Your task to perform on an android device: change the clock style Image 0: 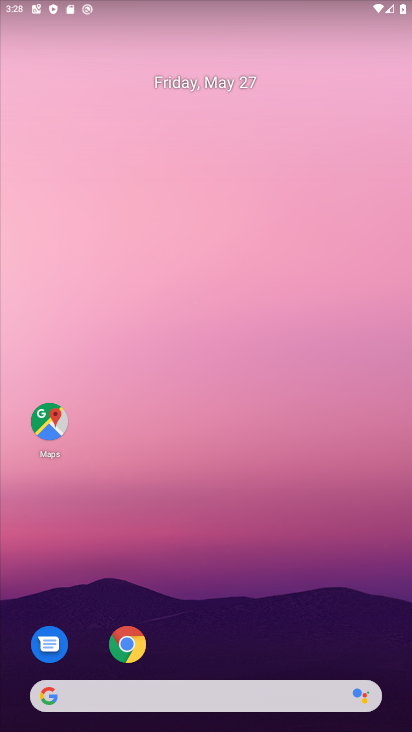
Step 0: drag from (264, 472) to (155, 0)
Your task to perform on an android device: change the clock style Image 1: 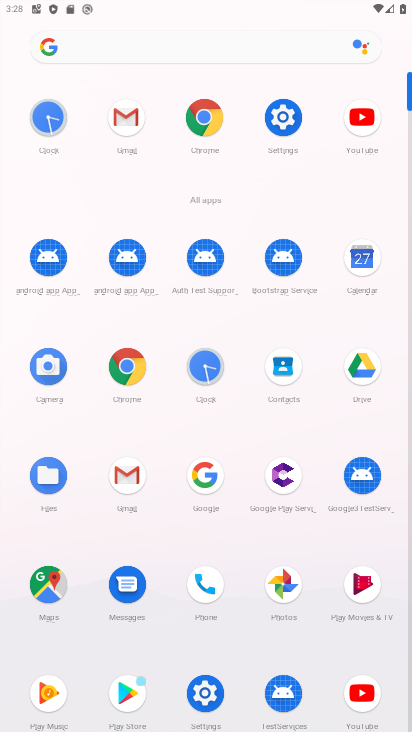
Step 1: click (202, 359)
Your task to perform on an android device: change the clock style Image 2: 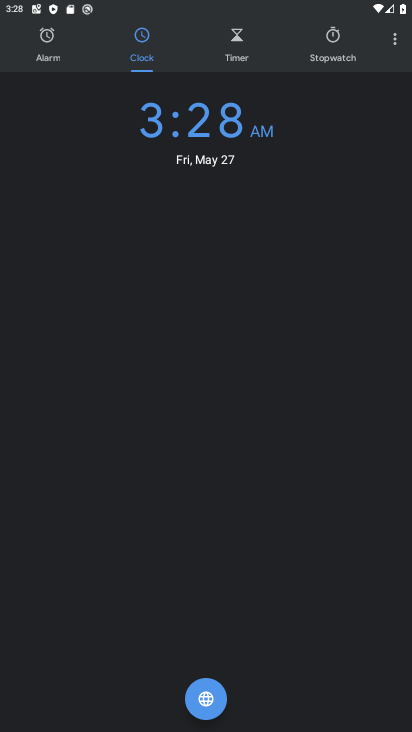
Step 2: click (404, 39)
Your task to perform on an android device: change the clock style Image 3: 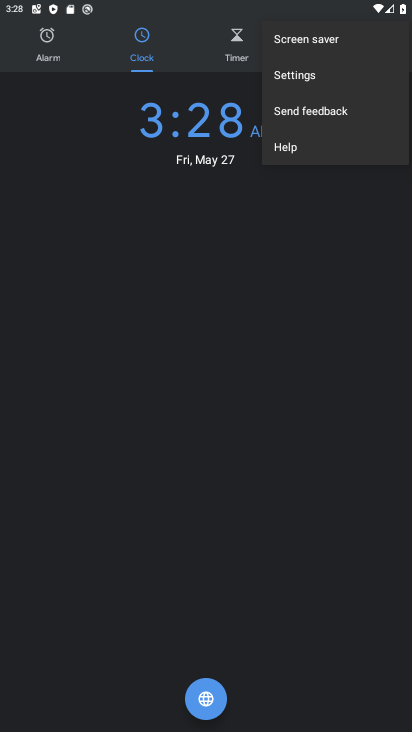
Step 3: click (301, 73)
Your task to perform on an android device: change the clock style Image 4: 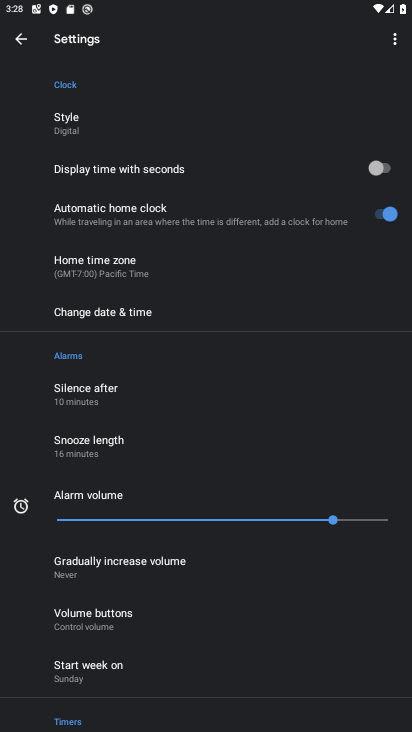
Step 4: click (120, 122)
Your task to perform on an android device: change the clock style Image 5: 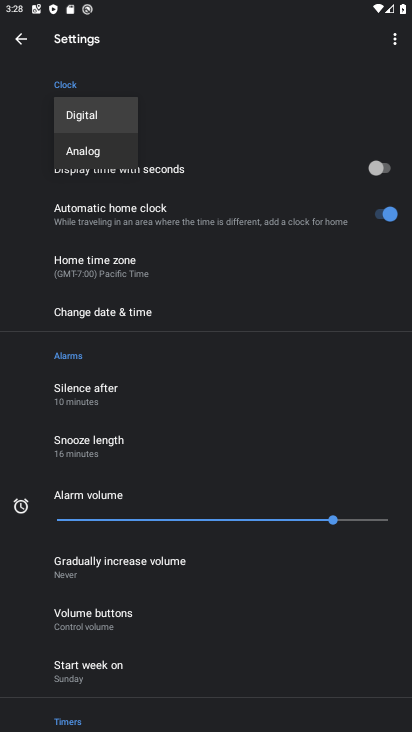
Step 5: click (114, 146)
Your task to perform on an android device: change the clock style Image 6: 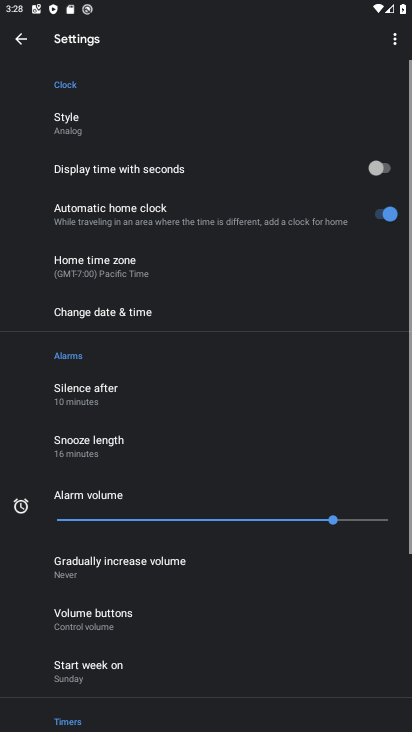
Step 6: task complete